Your task to perform on an android device: toggle translation in the chrome app Image 0: 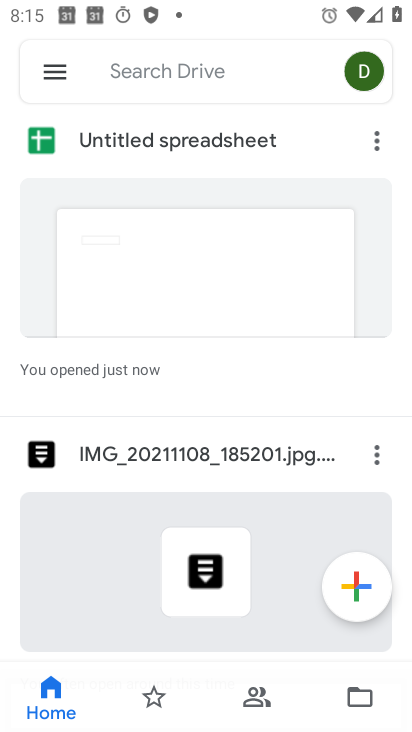
Step 0: press home button
Your task to perform on an android device: toggle translation in the chrome app Image 1: 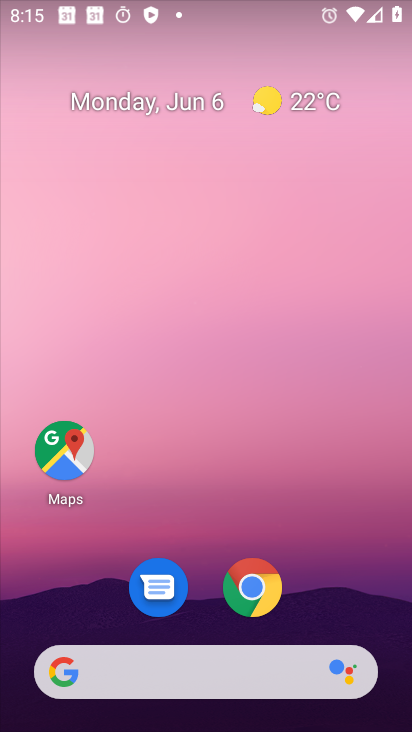
Step 1: click (264, 585)
Your task to perform on an android device: toggle translation in the chrome app Image 2: 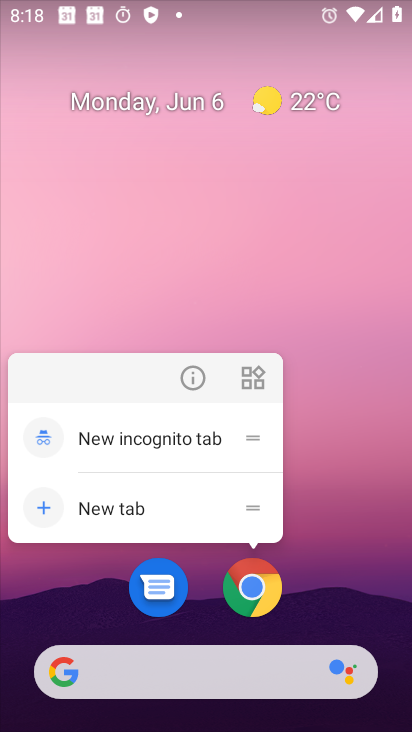
Step 2: click (259, 544)
Your task to perform on an android device: toggle translation in the chrome app Image 3: 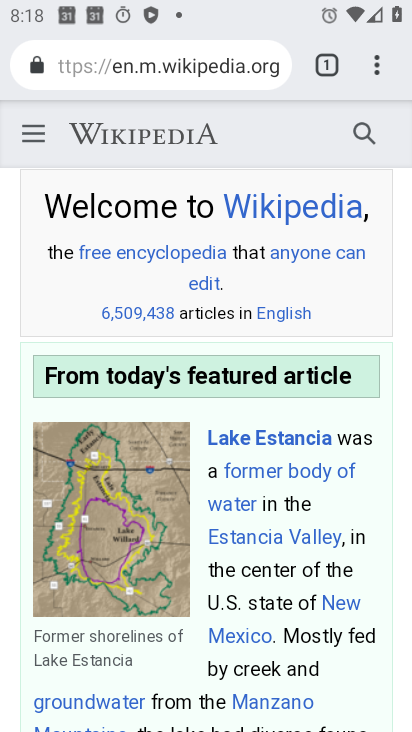
Step 3: click (376, 73)
Your task to perform on an android device: toggle translation in the chrome app Image 4: 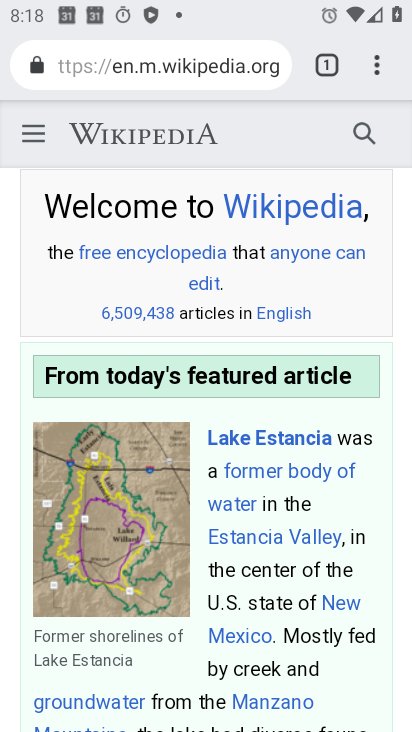
Step 4: click (376, 75)
Your task to perform on an android device: toggle translation in the chrome app Image 5: 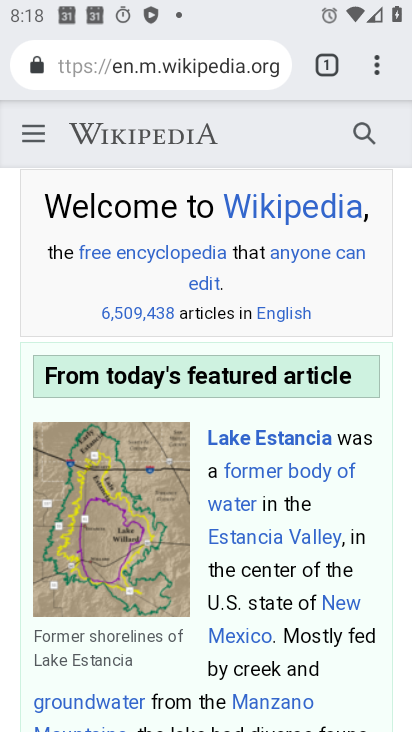
Step 5: click (371, 54)
Your task to perform on an android device: toggle translation in the chrome app Image 6: 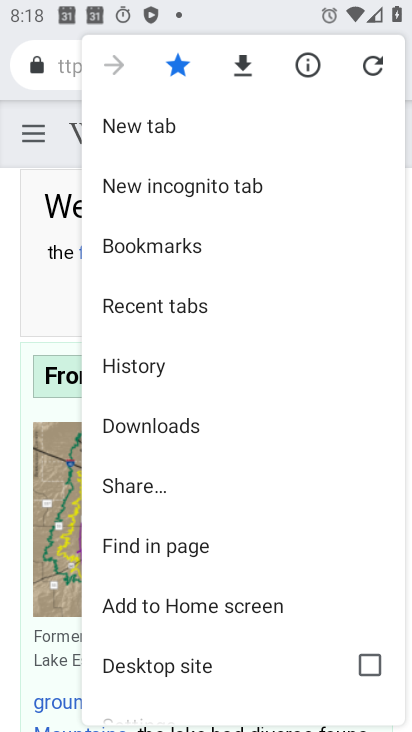
Step 6: drag from (172, 681) to (172, 339)
Your task to perform on an android device: toggle translation in the chrome app Image 7: 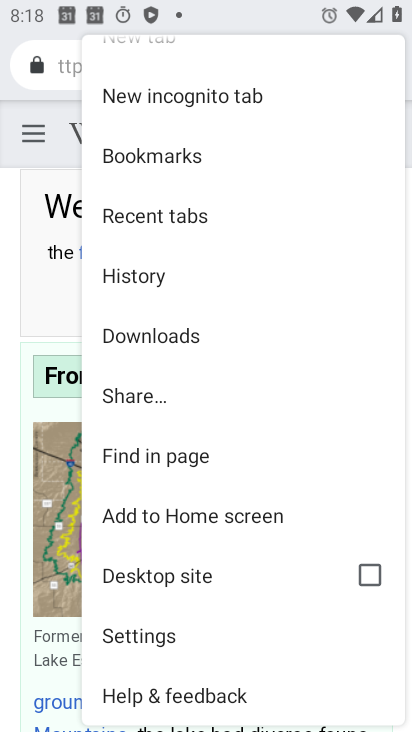
Step 7: click (127, 619)
Your task to perform on an android device: toggle translation in the chrome app Image 8: 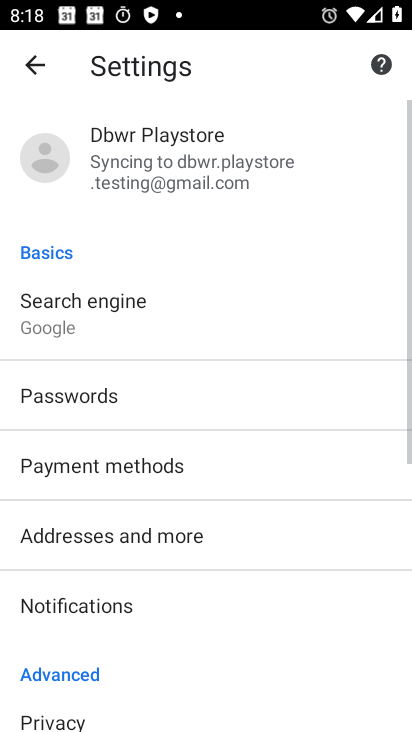
Step 8: drag from (113, 715) to (109, 407)
Your task to perform on an android device: toggle translation in the chrome app Image 9: 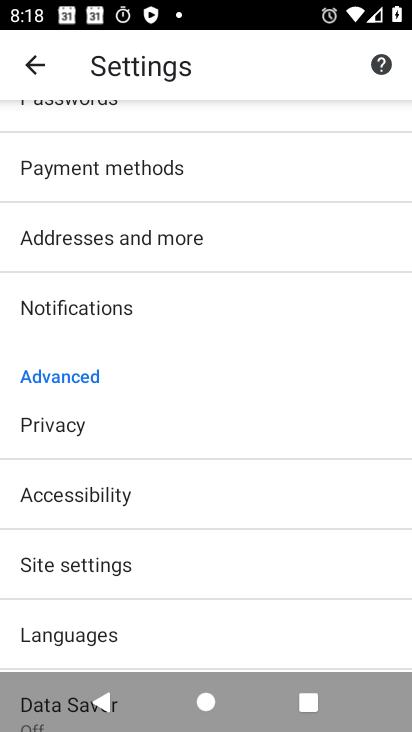
Step 9: click (92, 645)
Your task to perform on an android device: toggle translation in the chrome app Image 10: 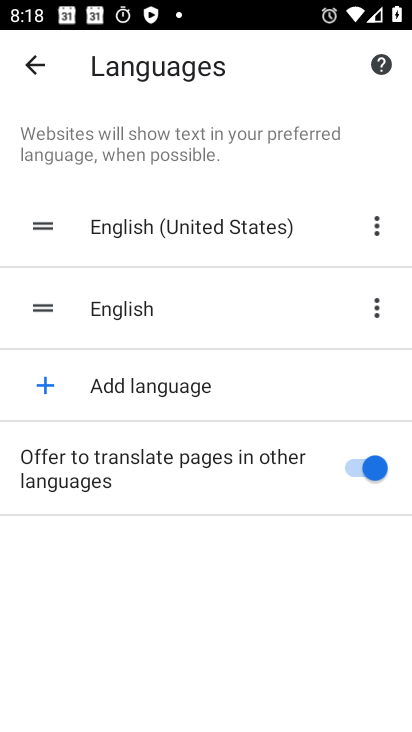
Step 10: click (360, 463)
Your task to perform on an android device: toggle translation in the chrome app Image 11: 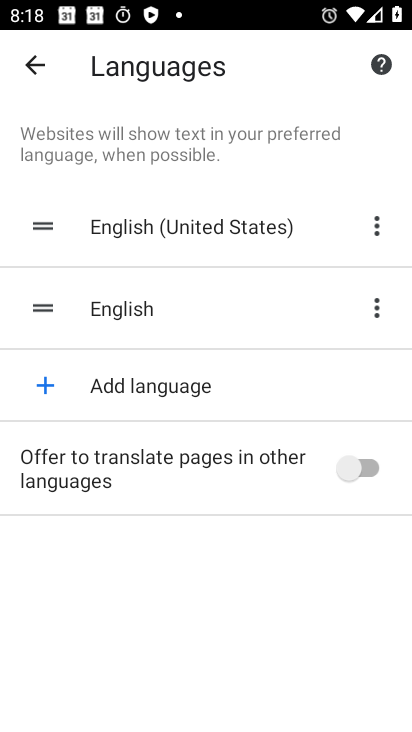
Step 11: task complete